Your task to perform on an android device: Find coffee shops on Maps Image 0: 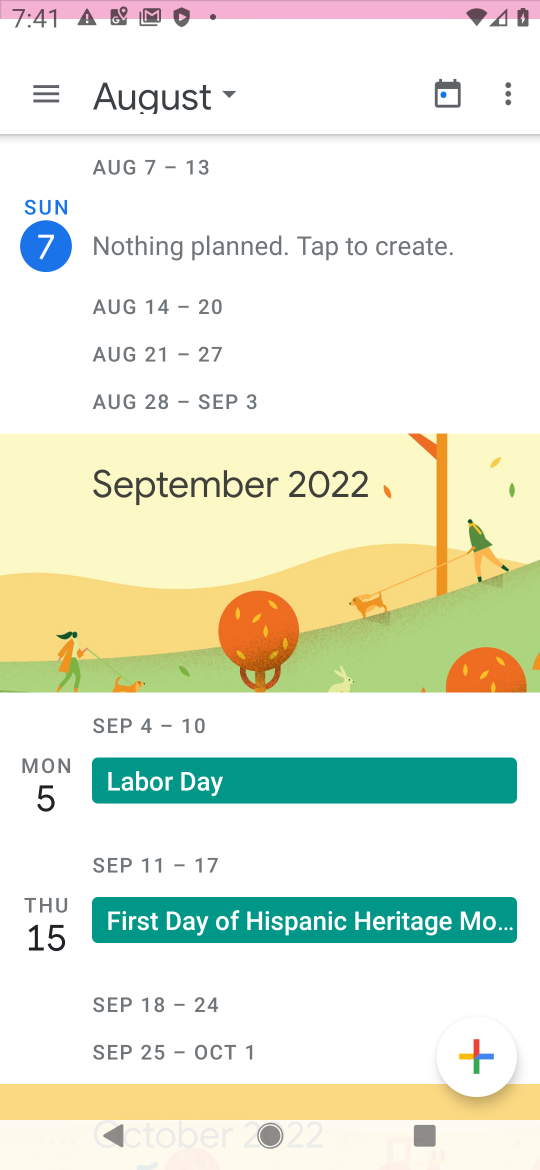
Step 0: click (324, 42)
Your task to perform on an android device: Find coffee shops on Maps Image 1: 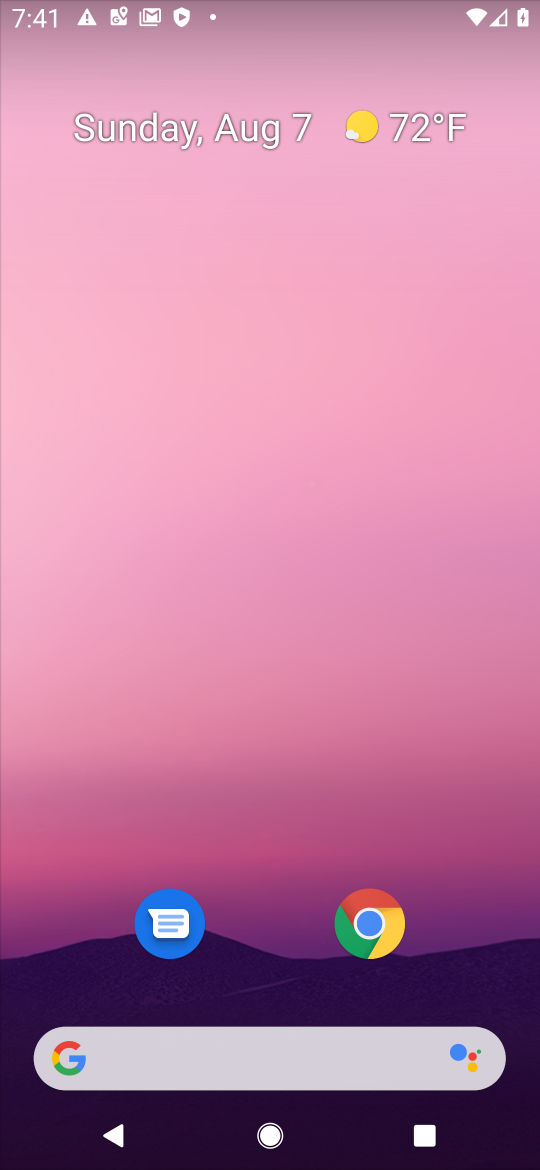
Step 1: drag from (348, 158) to (318, 1)
Your task to perform on an android device: Find coffee shops on Maps Image 2: 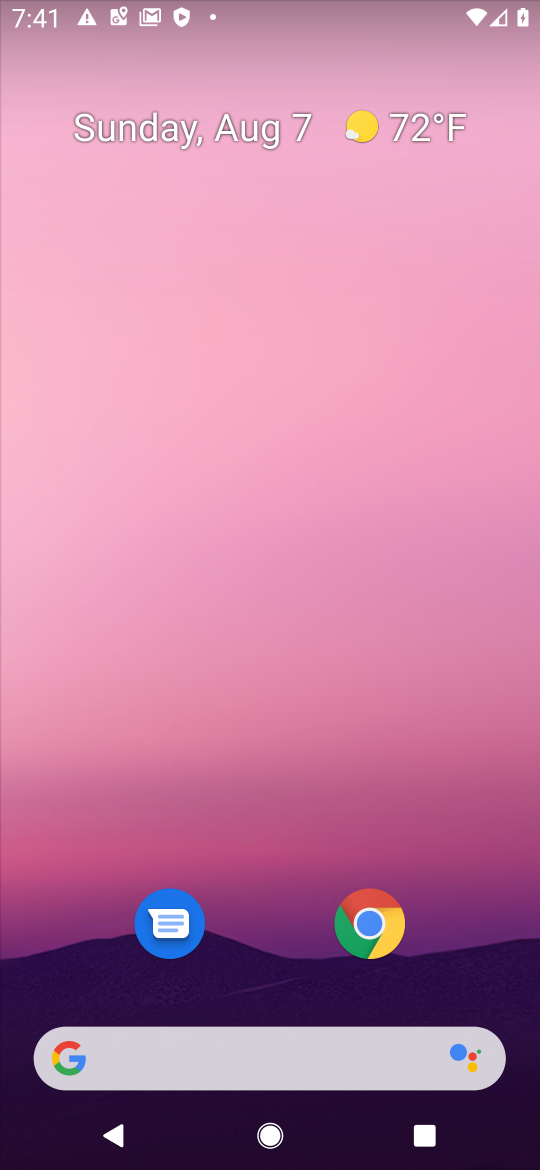
Step 2: drag from (477, 936) to (329, 48)
Your task to perform on an android device: Find coffee shops on Maps Image 3: 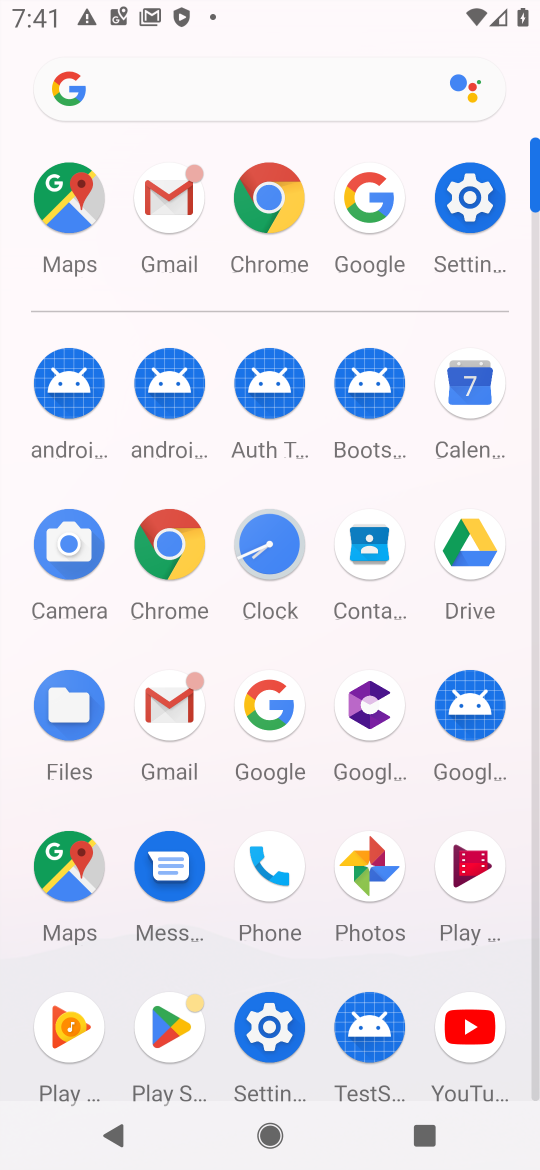
Step 3: click (85, 877)
Your task to perform on an android device: Find coffee shops on Maps Image 4: 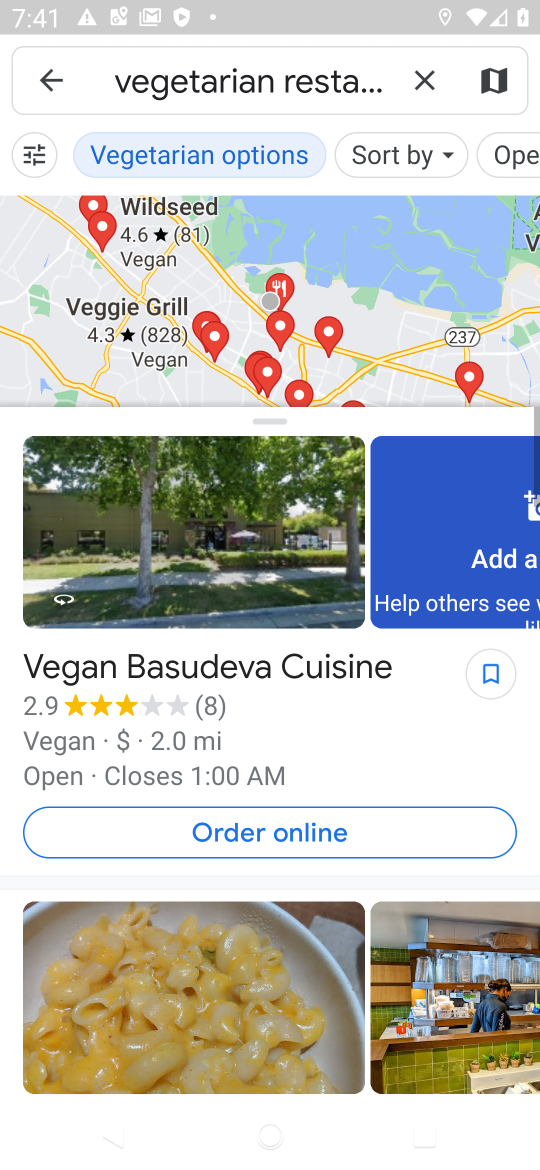
Step 4: click (439, 78)
Your task to perform on an android device: Find coffee shops on Maps Image 5: 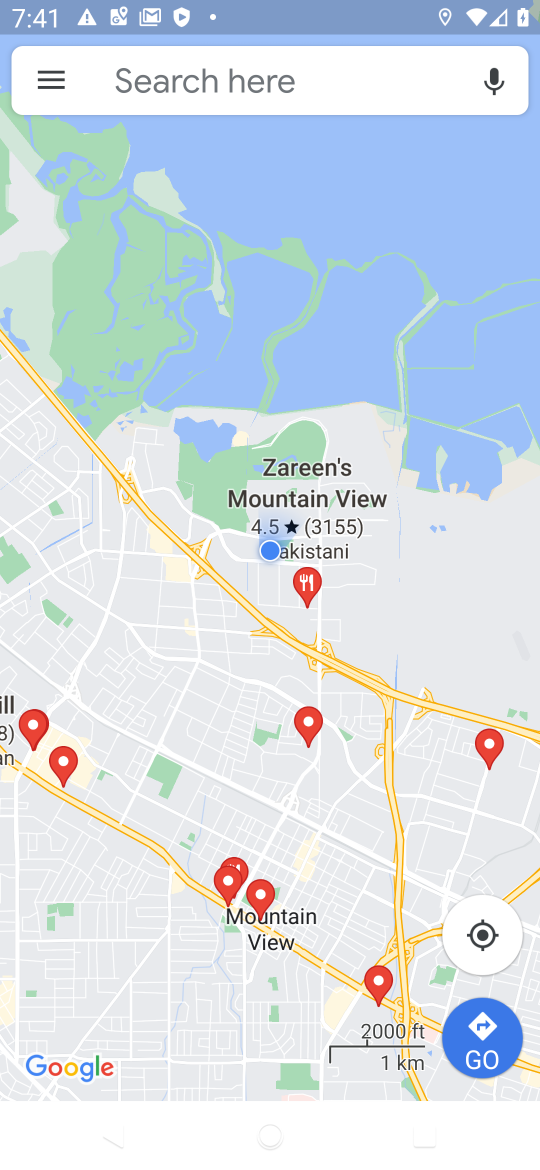
Step 5: click (303, 85)
Your task to perform on an android device: Find coffee shops on Maps Image 6: 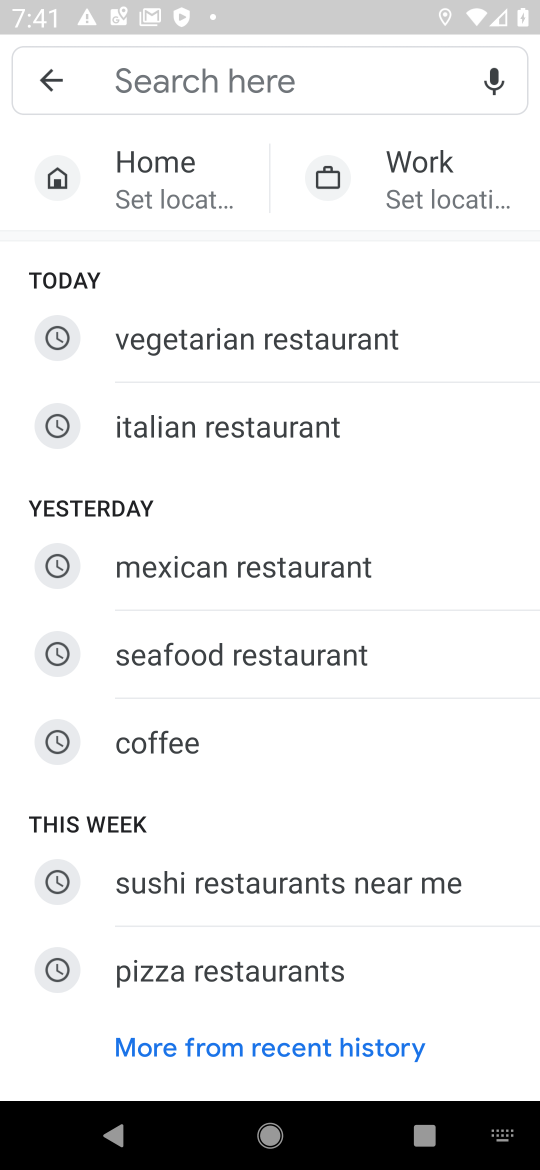
Step 6: click (151, 765)
Your task to perform on an android device: Find coffee shops on Maps Image 7: 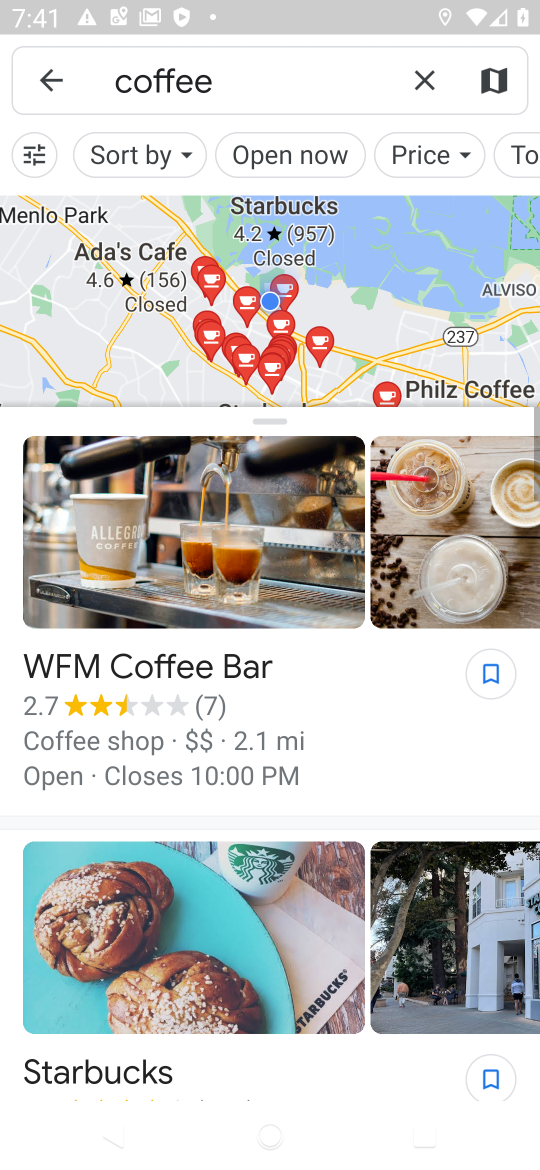
Step 7: task complete